Your task to perform on an android device: Check the weather Image 0: 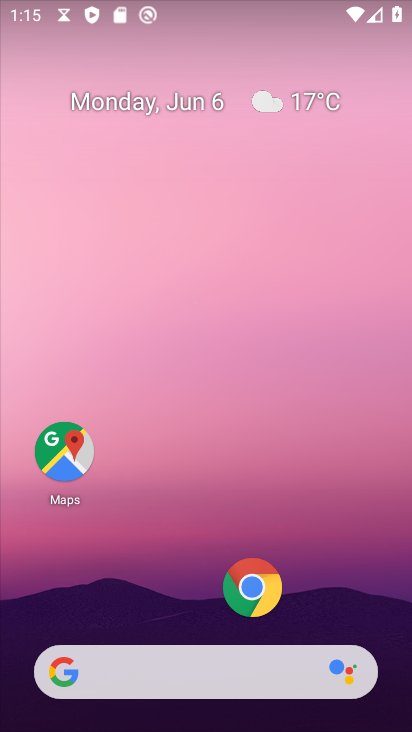
Step 0: click (267, 111)
Your task to perform on an android device: Check the weather Image 1: 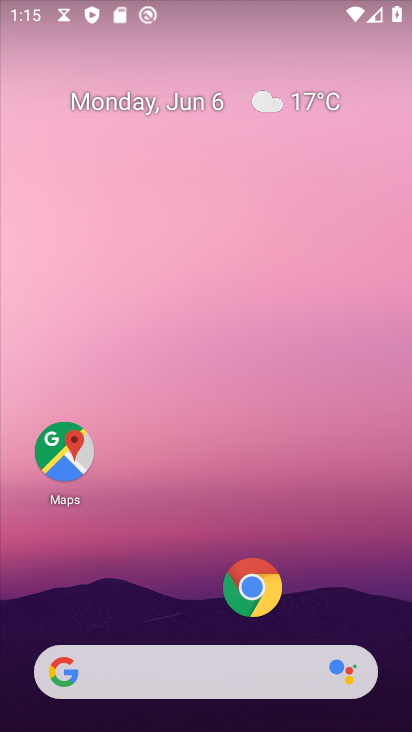
Step 1: click (308, 74)
Your task to perform on an android device: Check the weather Image 2: 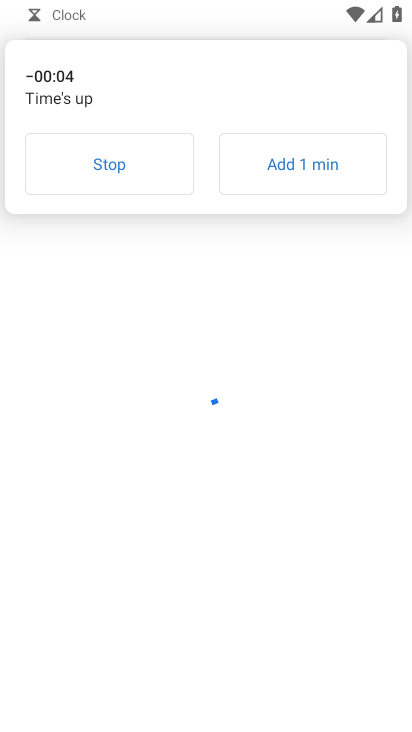
Step 2: click (164, 172)
Your task to perform on an android device: Check the weather Image 3: 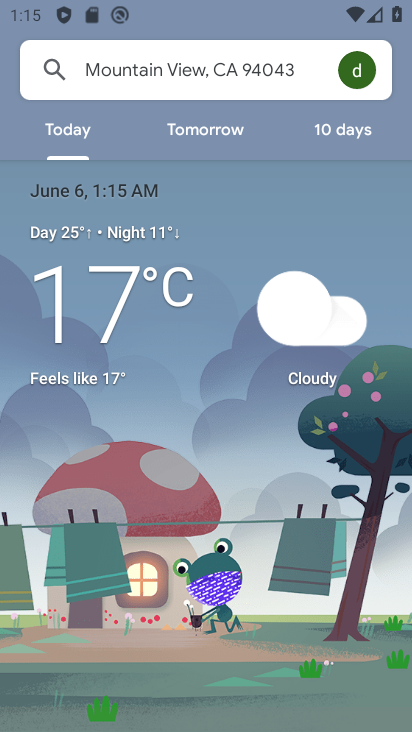
Step 3: task complete